Your task to perform on an android device: turn off smart reply in the gmail app Image 0: 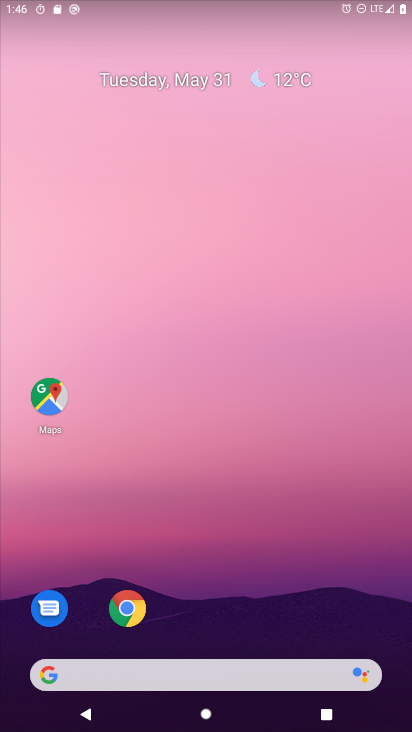
Step 0: drag from (264, 633) to (263, 26)
Your task to perform on an android device: turn off smart reply in the gmail app Image 1: 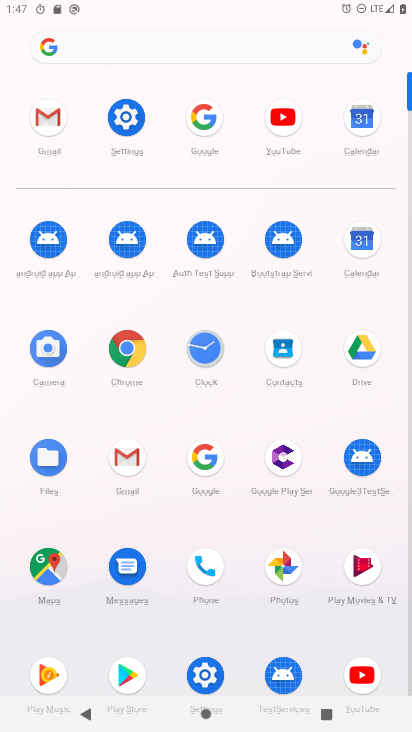
Step 1: click (46, 121)
Your task to perform on an android device: turn off smart reply in the gmail app Image 2: 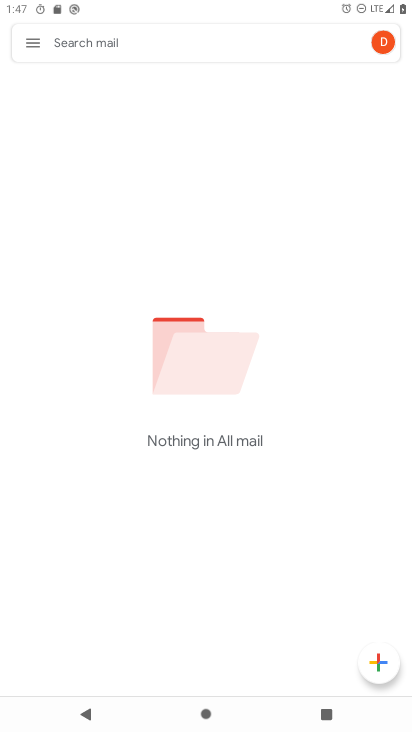
Step 2: click (33, 44)
Your task to perform on an android device: turn off smart reply in the gmail app Image 3: 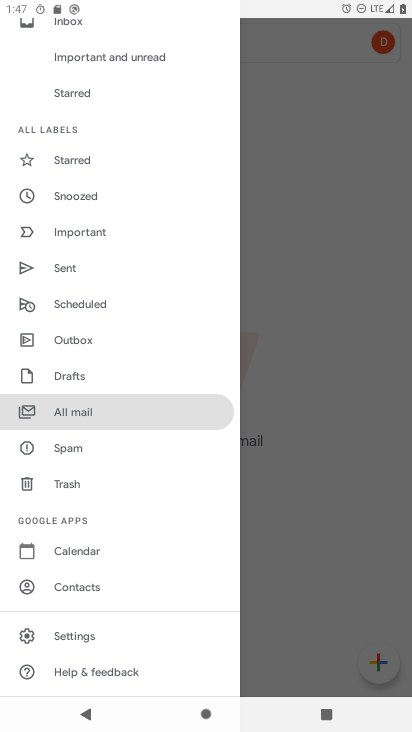
Step 3: click (84, 643)
Your task to perform on an android device: turn off smart reply in the gmail app Image 4: 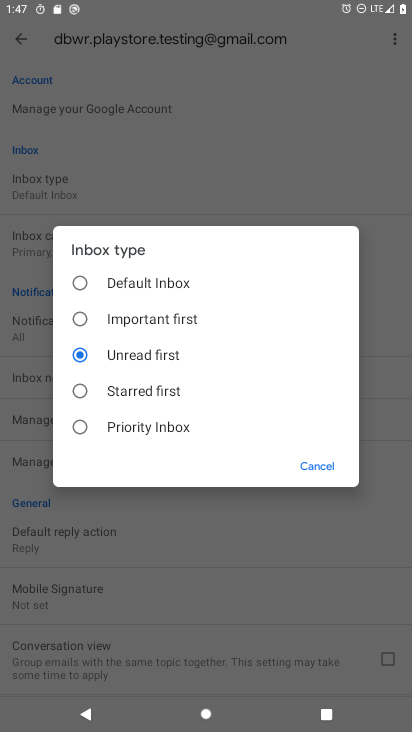
Step 4: click (310, 468)
Your task to perform on an android device: turn off smart reply in the gmail app Image 5: 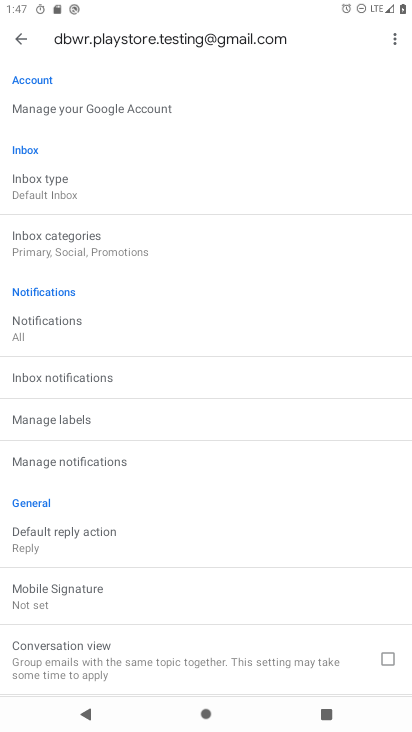
Step 5: drag from (154, 561) to (154, 130)
Your task to perform on an android device: turn off smart reply in the gmail app Image 6: 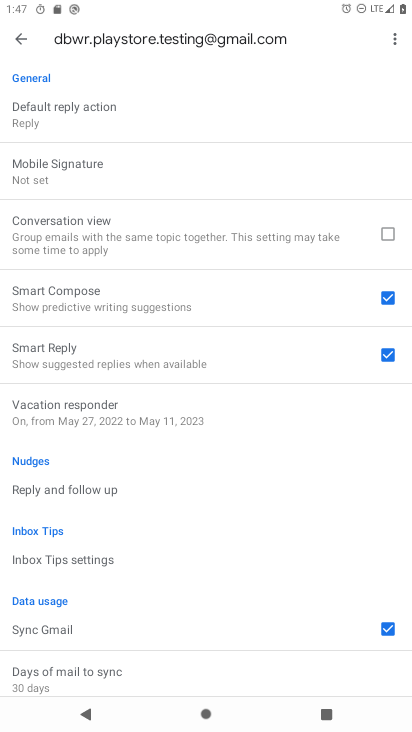
Step 6: click (381, 359)
Your task to perform on an android device: turn off smart reply in the gmail app Image 7: 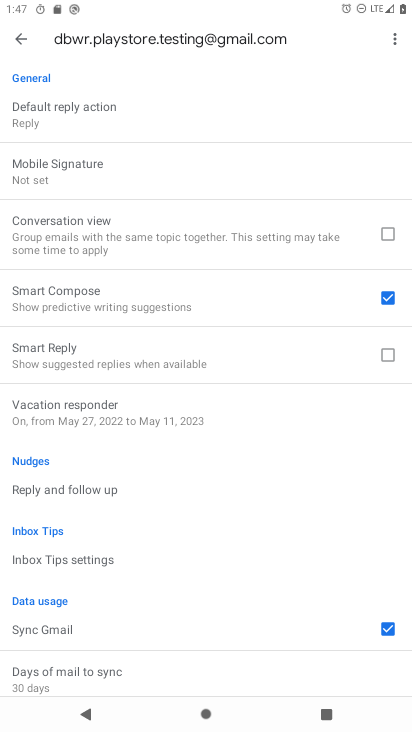
Step 7: task complete